Your task to perform on an android device: change alarm snooze length Image 0: 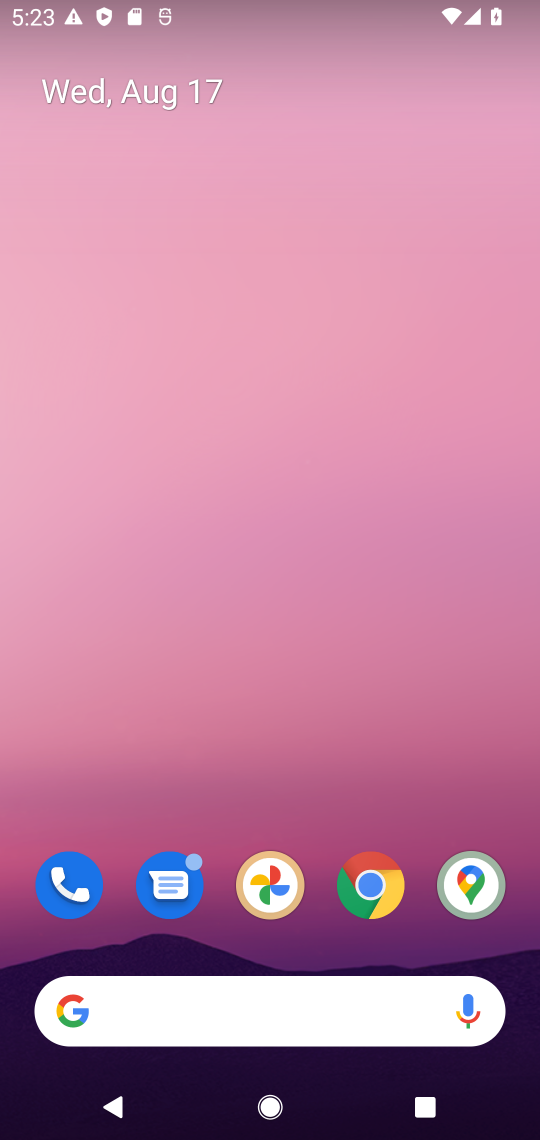
Step 0: drag from (289, 775) to (284, 216)
Your task to perform on an android device: change alarm snooze length Image 1: 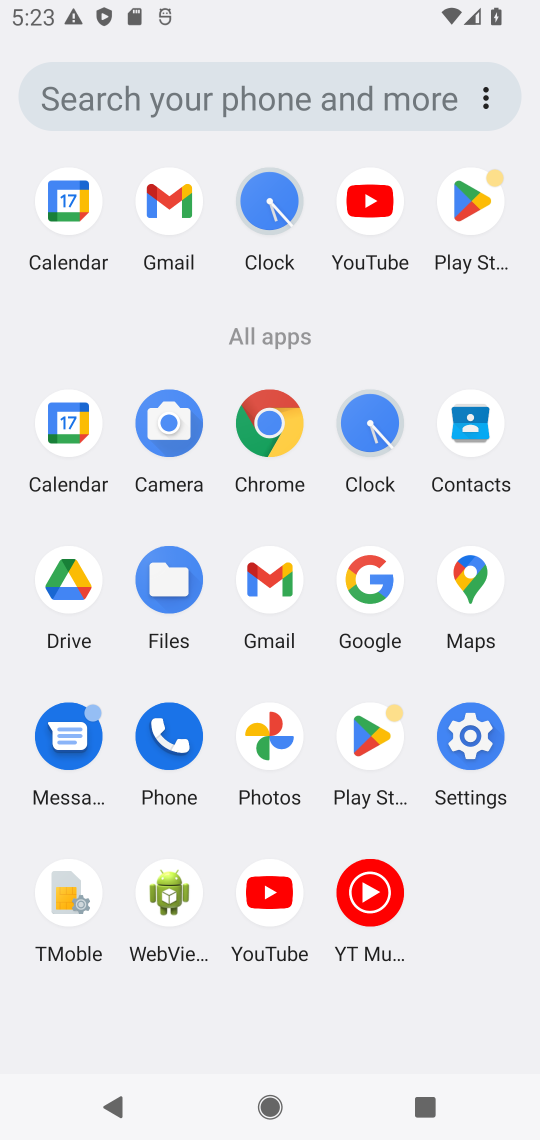
Step 1: click (380, 419)
Your task to perform on an android device: change alarm snooze length Image 2: 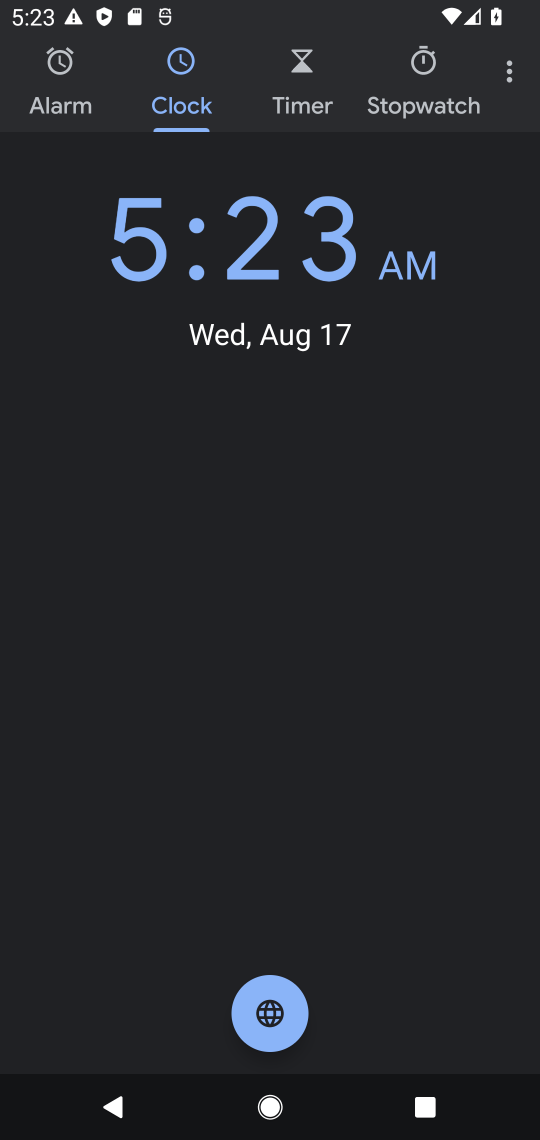
Step 2: click (510, 69)
Your task to perform on an android device: change alarm snooze length Image 3: 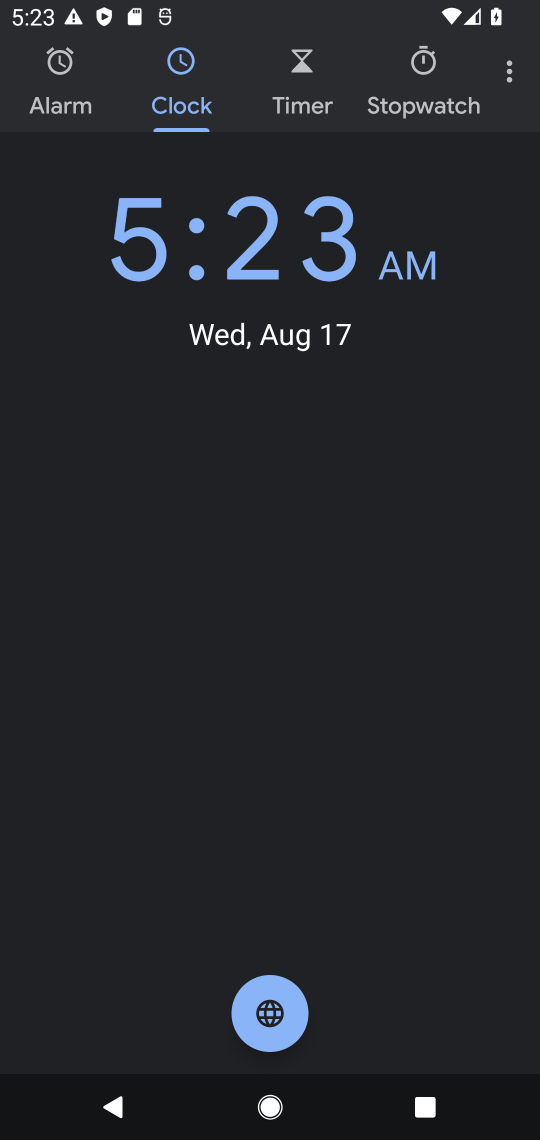
Step 3: click (510, 73)
Your task to perform on an android device: change alarm snooze length Image 4: 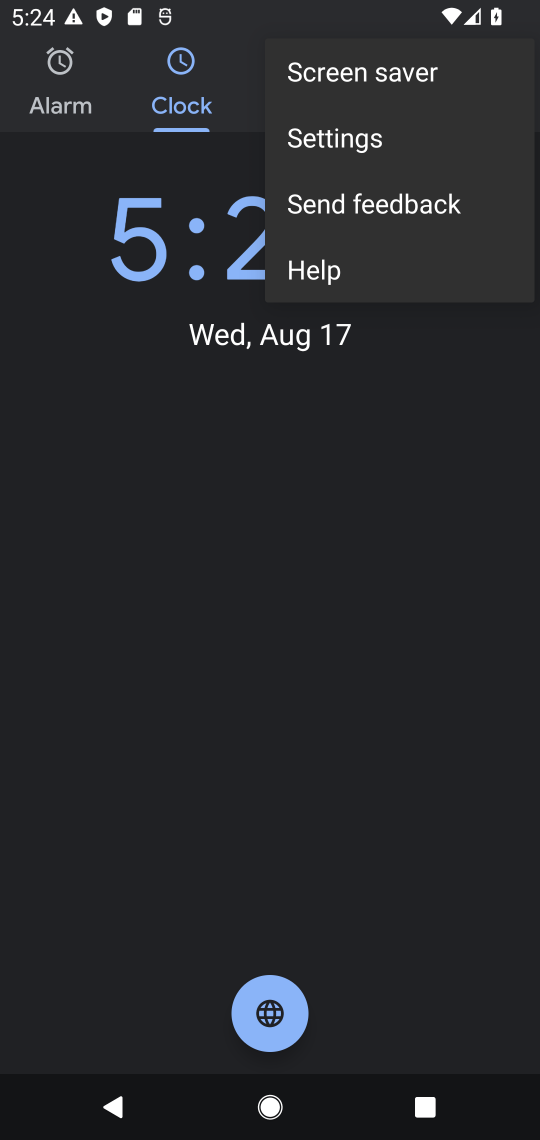
Step 4: click (415, 129)
Your task to perform on an android device: change alarm snooze length Image 5: 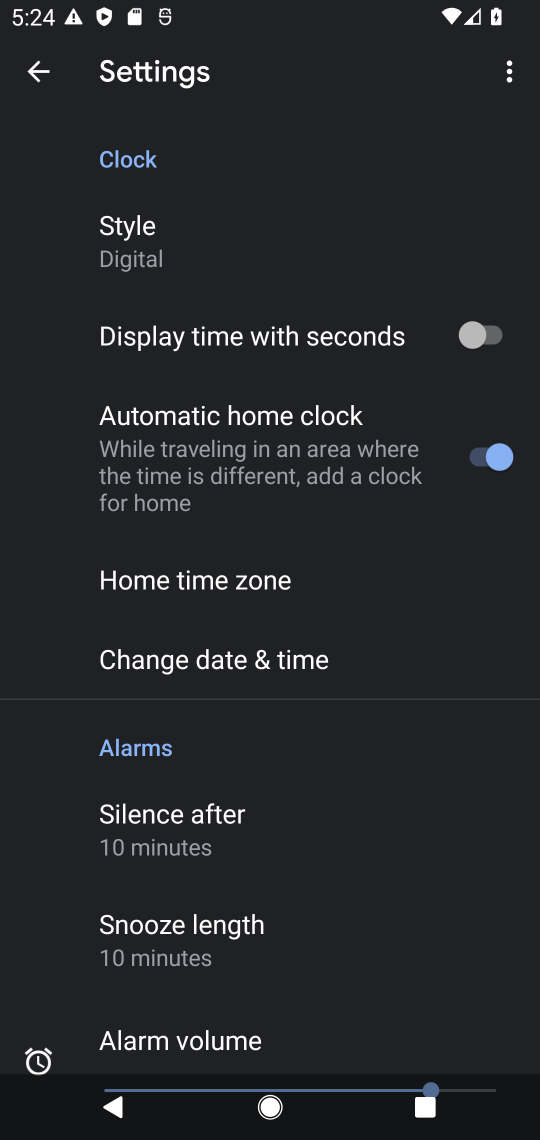
Step 5: click (247, 927)
Your task to perform on an android device: change alarm snooze length Image 6: 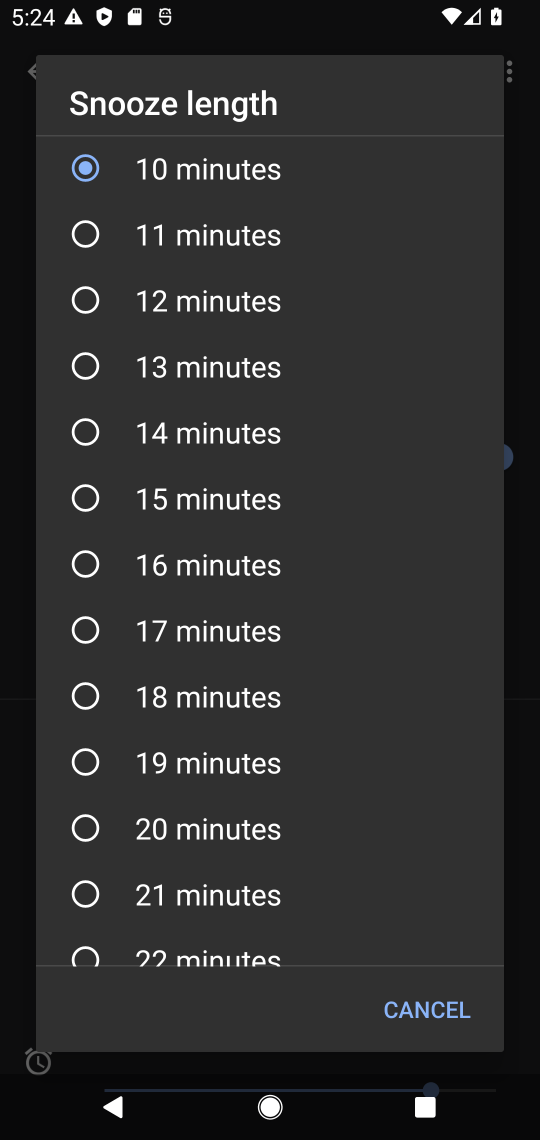
Step 6: click (222, 235)
Your task to perform on an android device: change alarm snooze length Image 7: 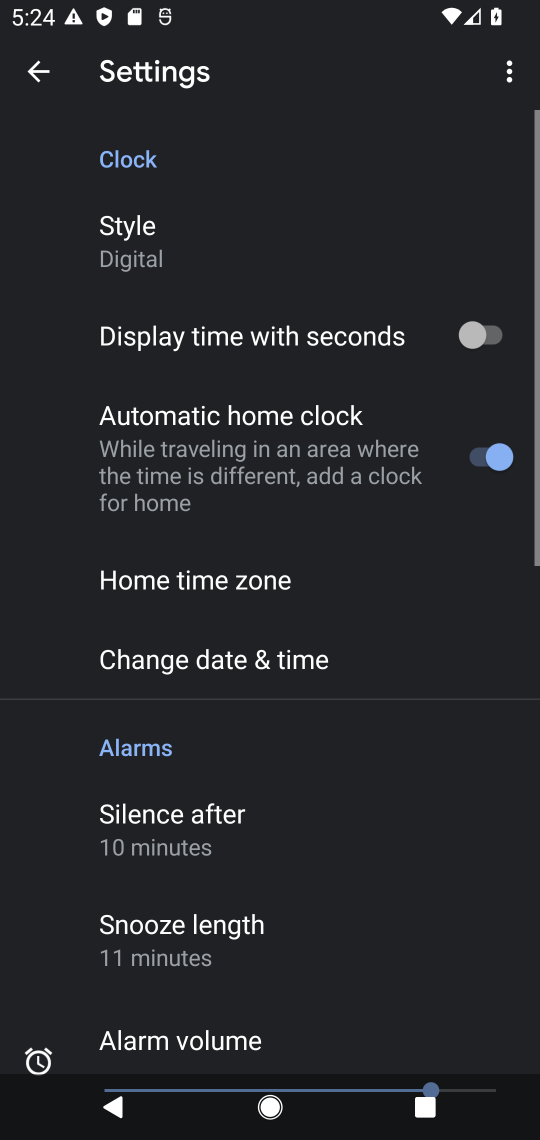
Step 7: task complete